Your task to perform on an android device: clear history in the chrome app Image 0: 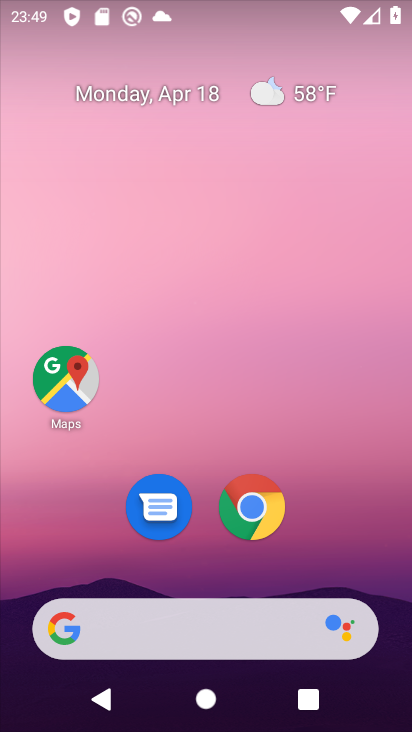
Step 0: click (252, 500)
Your task to perform on an android device: clear history in the chrome app Image 1: 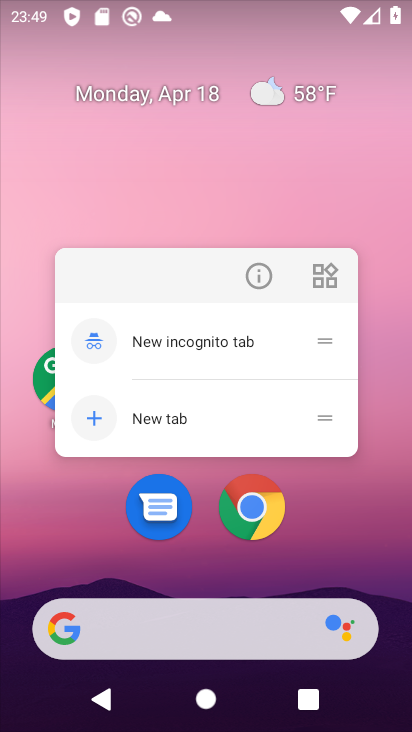
Step 1: click (225, 202)
Your task to perform on an android device: clear history in the chrome app Image 2: 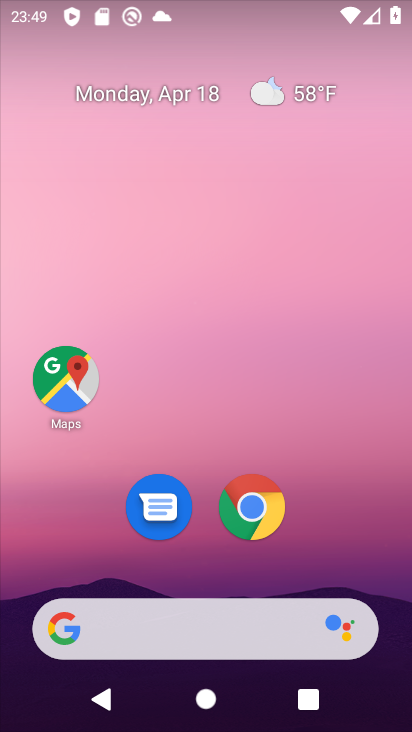
Step 2: drag from (211, 537) to (211, 268)
Your task to perform on an android device: clear history in the chrome app Image 3: 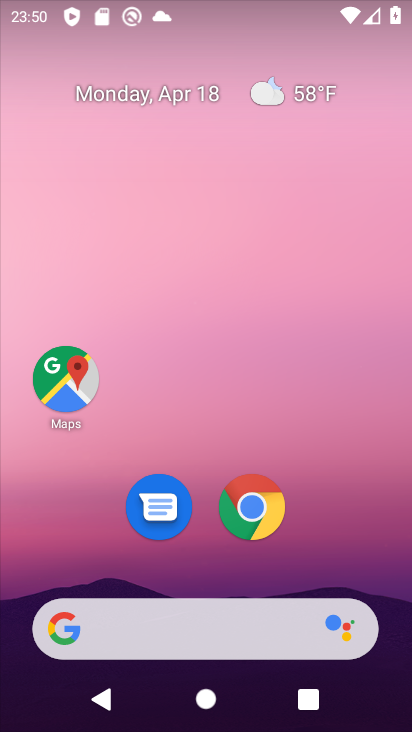
Step 3: click (249, 506)
Your task to perform on an android device: clear history in the chrome app Image 4: 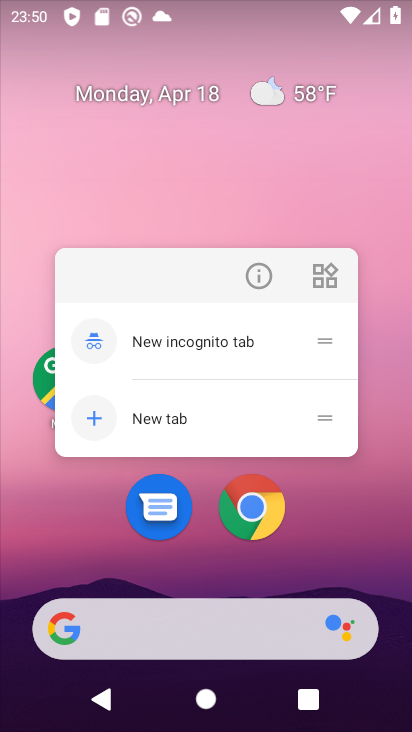
Step 4: click (216, 563)
Your task to perform on an android device: clear history in the chrome app Image 5: 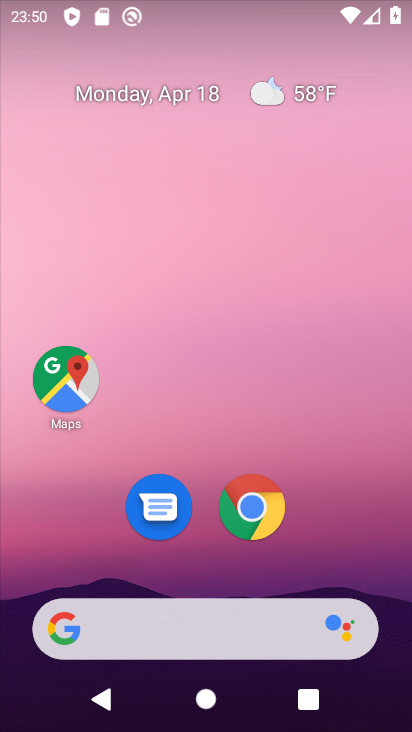
Step 5: drag from (214, 568) to (206, 7)
Your task to perform on an android device: clear history in the chrome app Image 6: 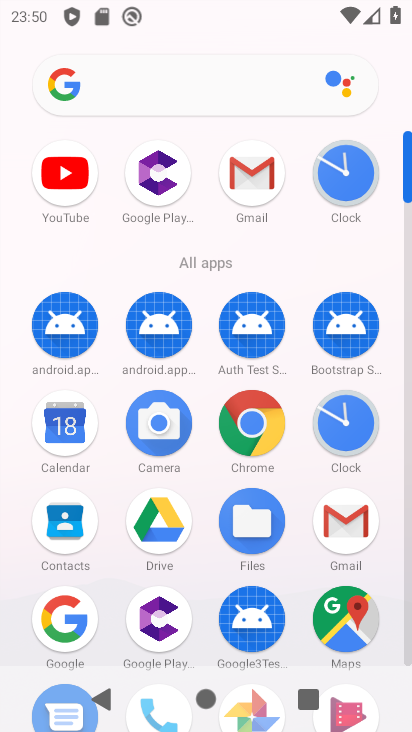
Step 6: click (252, 422)
Your task to perform on an android device: clear history in the chrome app Image 7: 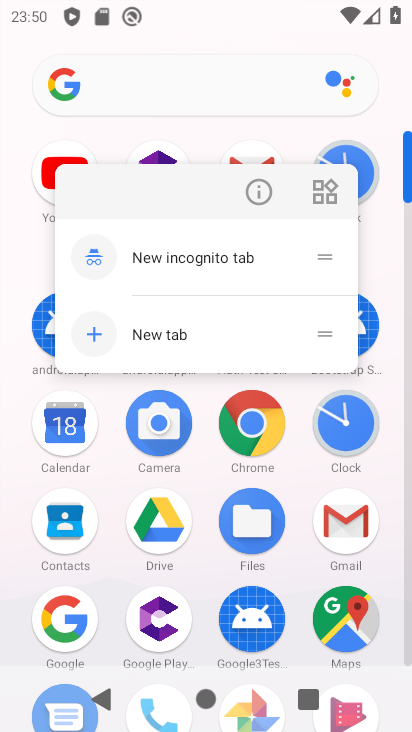
Step 7: click (249, 419)
Your task to perform on an android device: clear history in the chrome app Image 8: 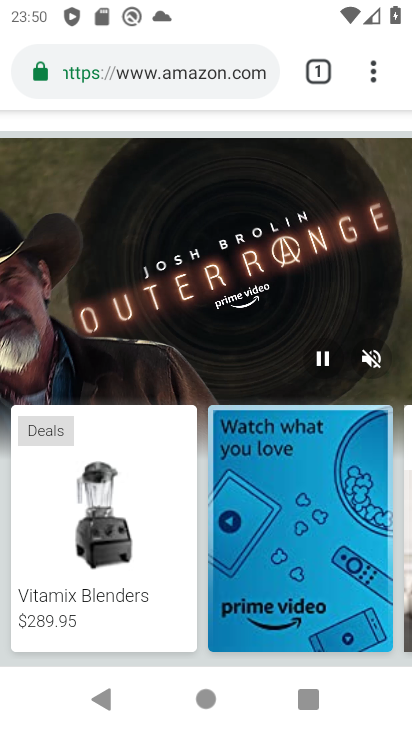
Step 8: click (365, 70)
Your task to perform on an android device: clear history in the chrome app Image 9: 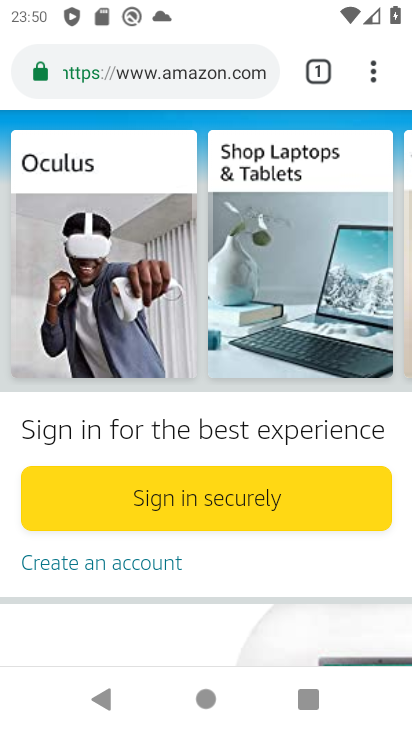
Step 9: click (377, 71)
Your task to perform on an android device: clear history in the chrome app Image 10: 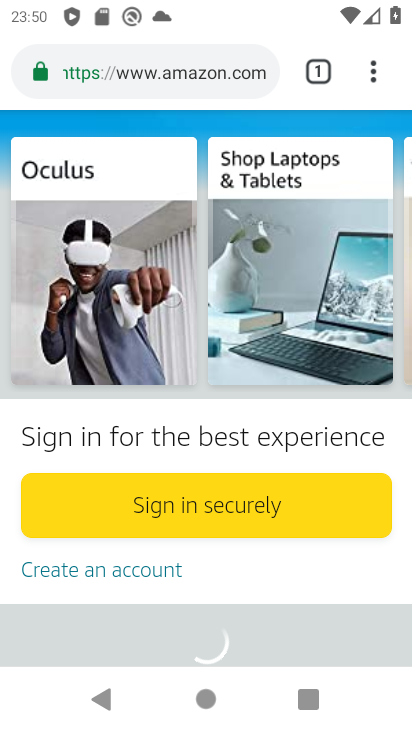
Step 10: click (370, 64)
Your task to perform on an android device: clear history in the chrome app Image 11: 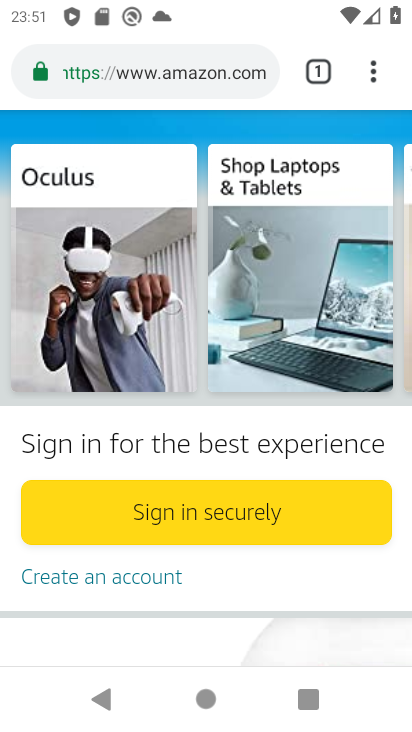
Step 11: click (367, 74)
Your task to perform on an android device: clear history in the chrome app Image 12: 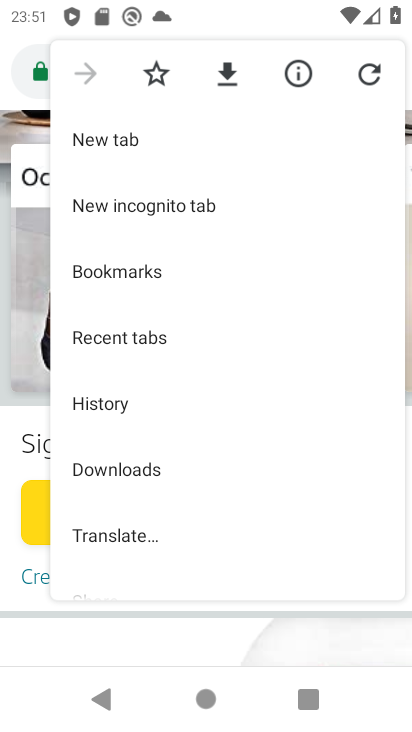
Step 12: click (131, 395)
Your task to perform on an android device: clear history in the chrome app Image 13: 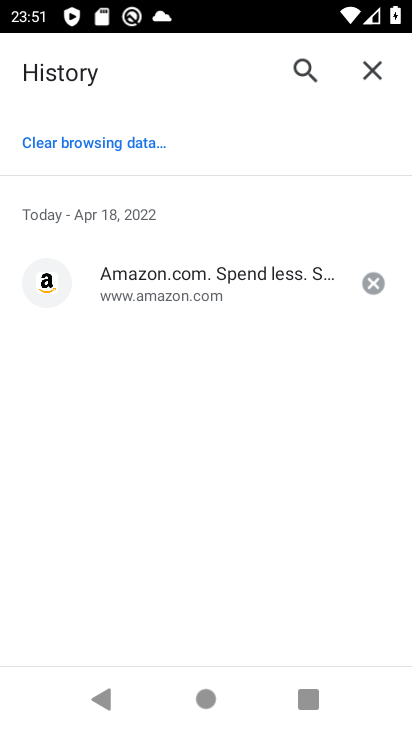
Step 13: click (111, 140)
Your task to perform on an android device: clear history in the chrome app Image 14: 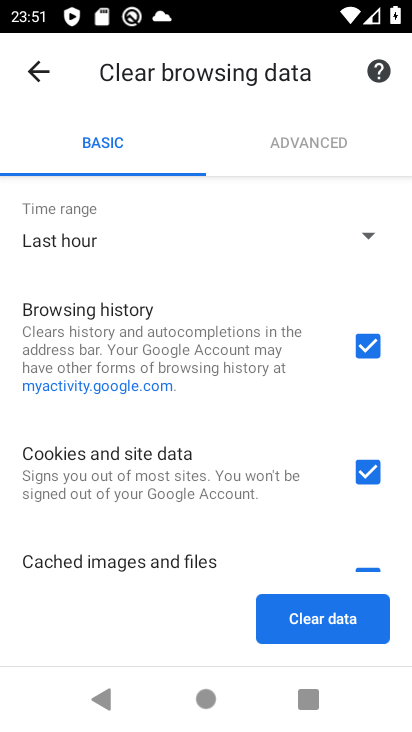
Step 14: click (327, 613)
Your task to perform on an android device: clear history in the chrome app Image 15: 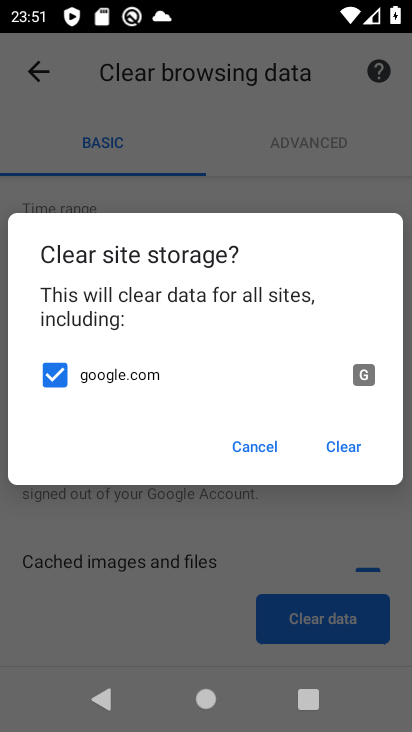
Step 15: click (335, 445)
Your task to perform on an android device: clear history in the chrome app Image 16: 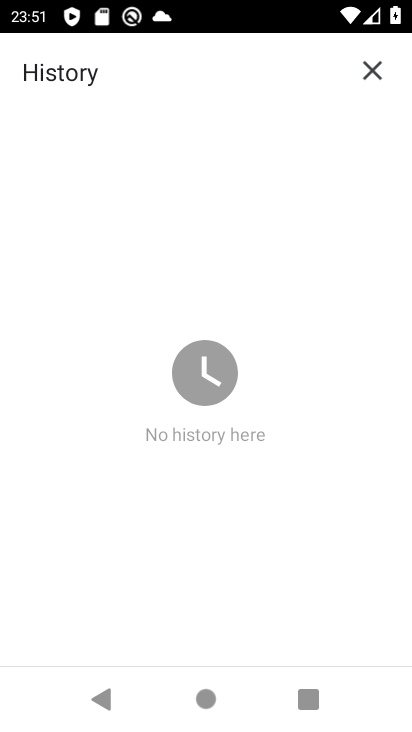
Step 16: task complete